Your task to perform on an android device: turn off sleep mode Image 0: 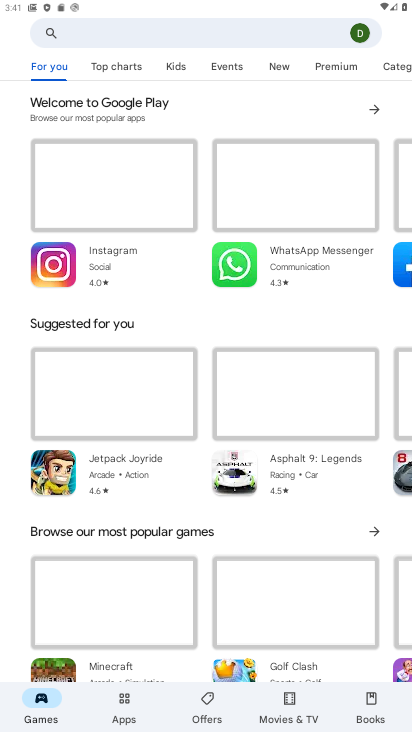
Step 0: press home button
Your task to perform on an android device: turn off sleep mode Image 1: 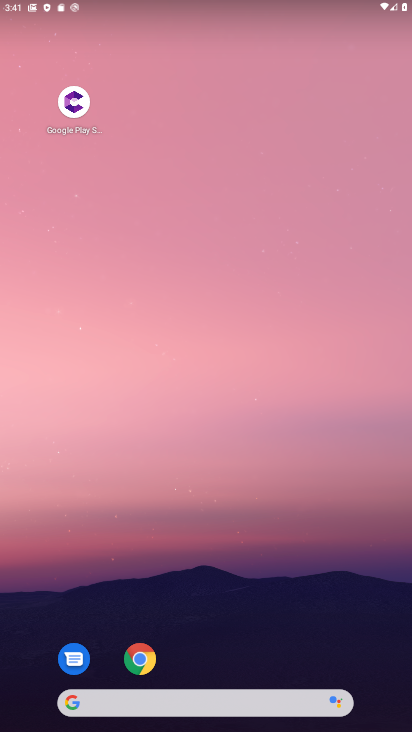
Step 1: drag from (215, 642) to (248, 50)
Your task to perform on an android device: turn off sleep mode Image 2: 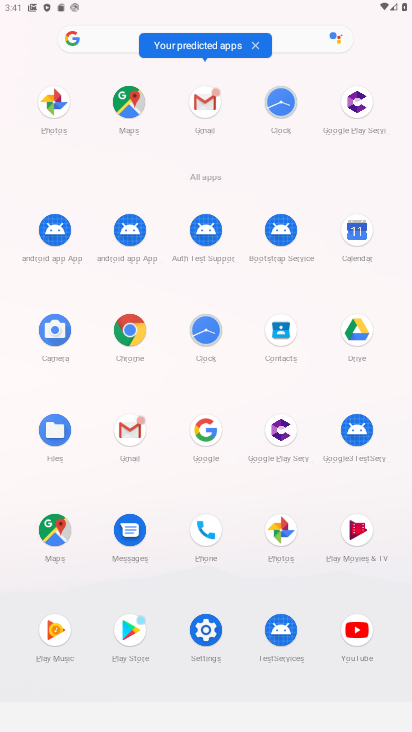
Step 2: click (208, 627)
Your task to perform on an android device: turn off sleep mode Image 3: 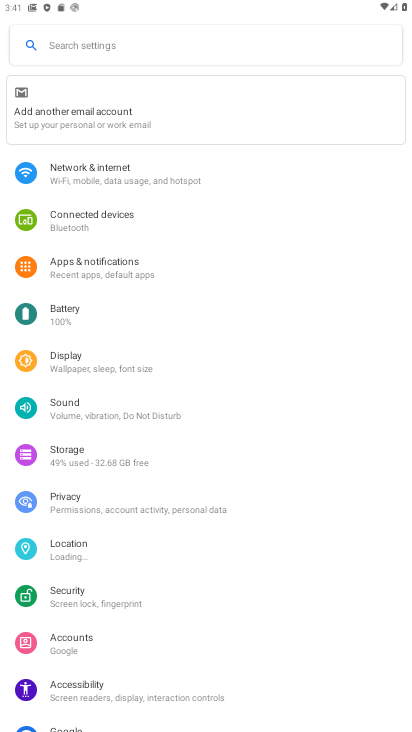
Step 3: task complete